Your task to perform on an android device: Open the phone app and click the voicemail tab. Image 0: 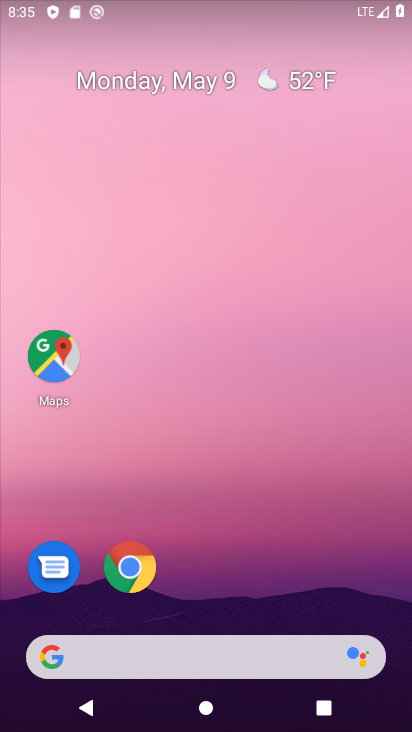
Step 0: drag from (253, 563) to (222, 125)
Your task to perform on an android device: Open the phone app and click the voicemail tab. Image 1: 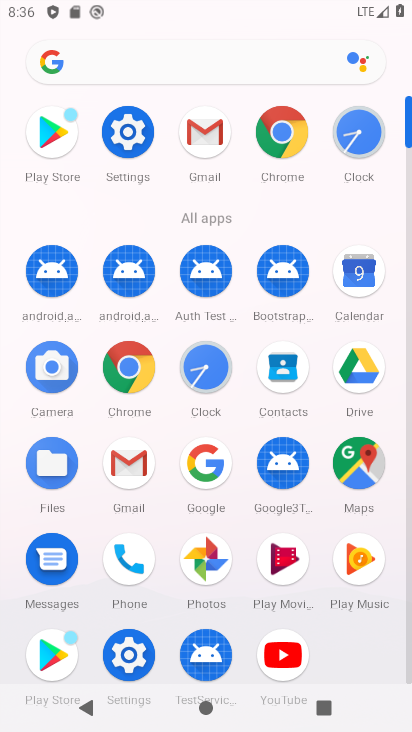
Step 1: drag from (339, 649) to (309, 336)
Your task to perform on an android device: Open the phone app and click the voicemail tab. Image 2: 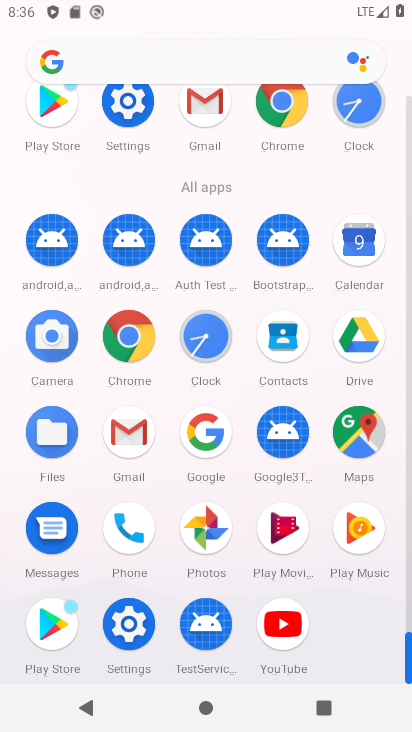
Step 2: click (134, 528)
Your task to perform on an android device: Open the phone app and click the voicemail tab. Image 3: 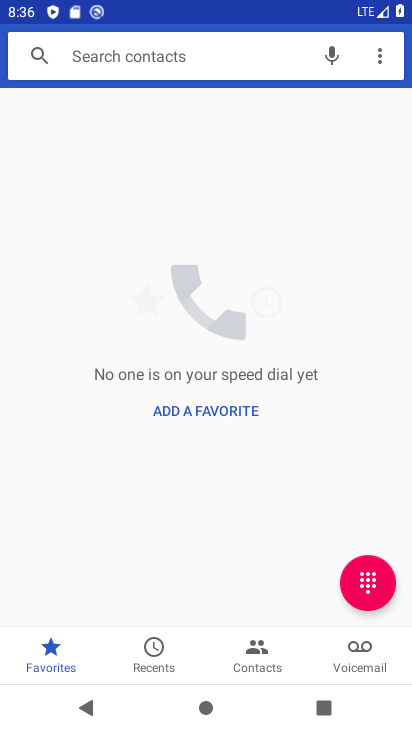
Step 3: click (354, 648)
Your task to perform on an android device: Open the phone app and click the voicemail tab. Image 4: 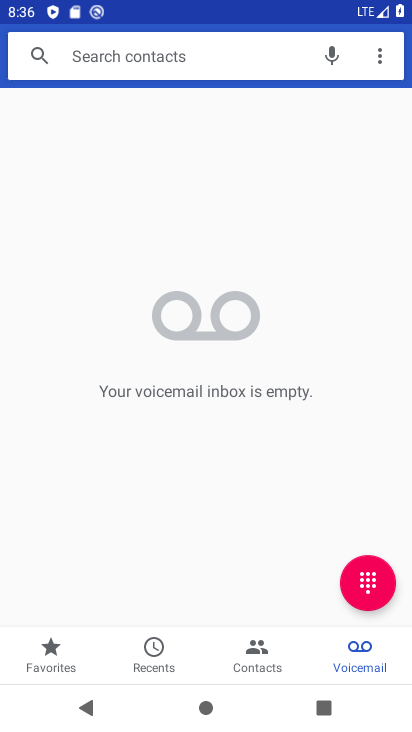
Step 4: task complete